Your task to perform on an android device: toggle location history Image 0: 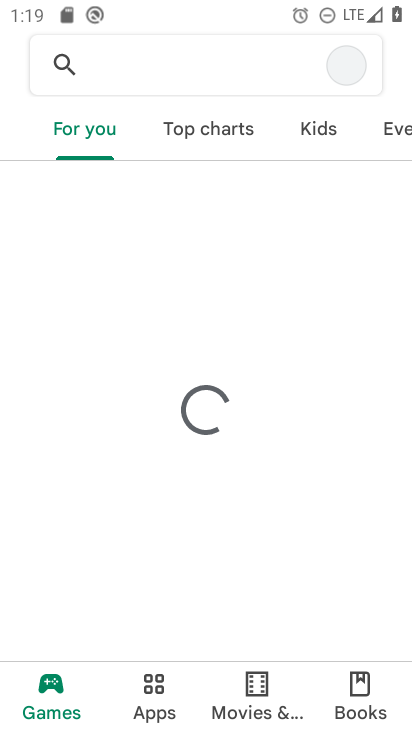
Step 0: press home button
Your task to perform on an android device: toggle location history Image 1: 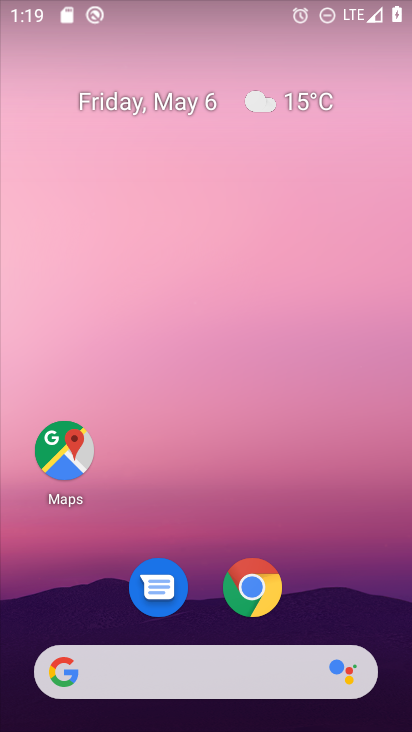
Step 1: drag from (352, 586) to (257, 9)
Your task to perform on an android device: toggle location history Image 2: 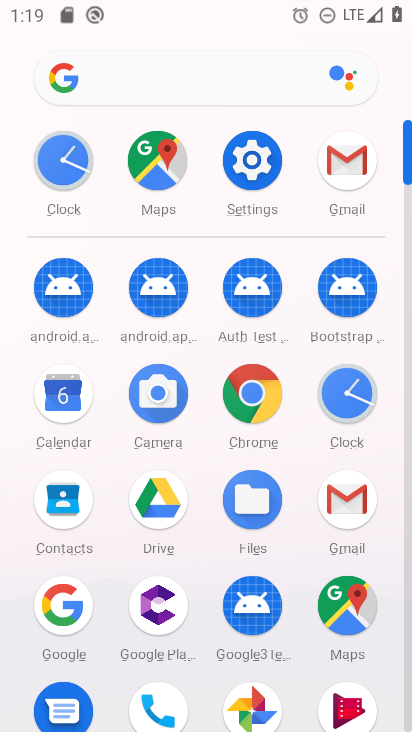
Step 2: click (256, 159)
Your task to perform on an android device: toggle location history Image 3: 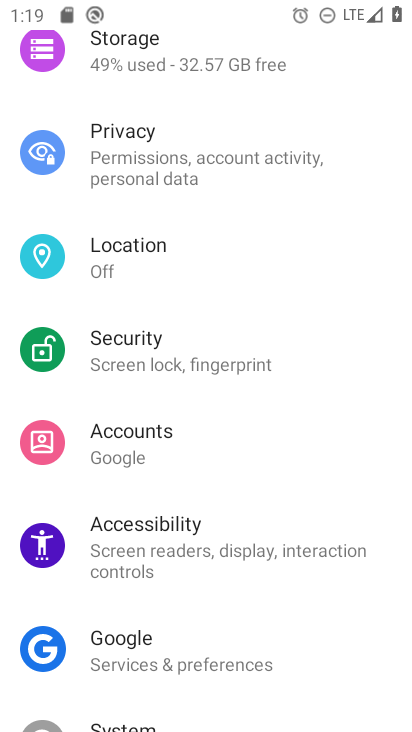
Step 3: click (169, 255)
Your task to perform on an android device: toggle location history Image 4: 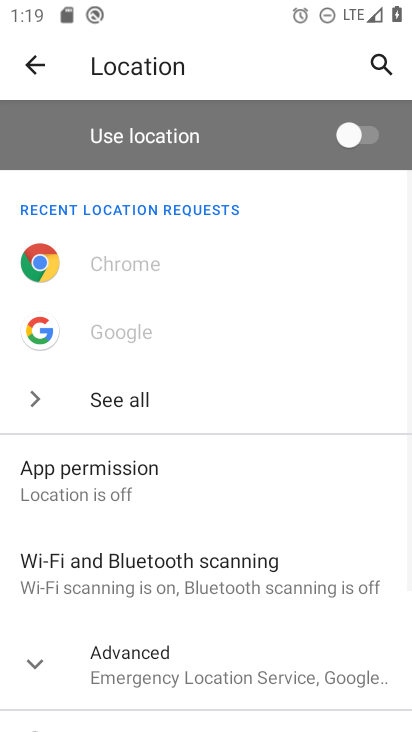
Step 4: click (138, 655)
Your task to perform on an android device: toggle location history Image 5: 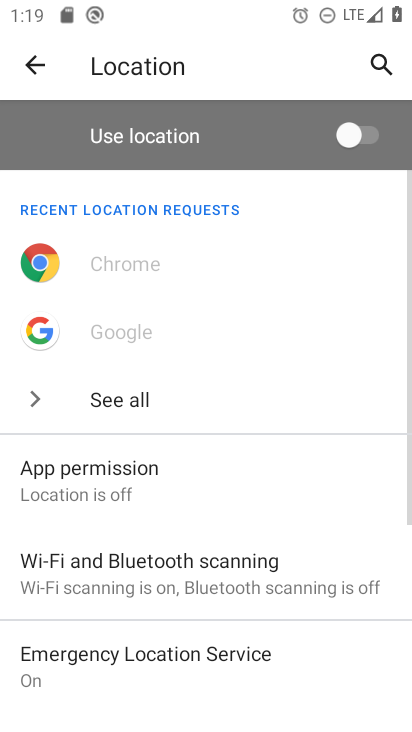
Step 5: drag from (157, 669) to (170, 233)
Your task to perform on an android device: toggle location history Image 6: 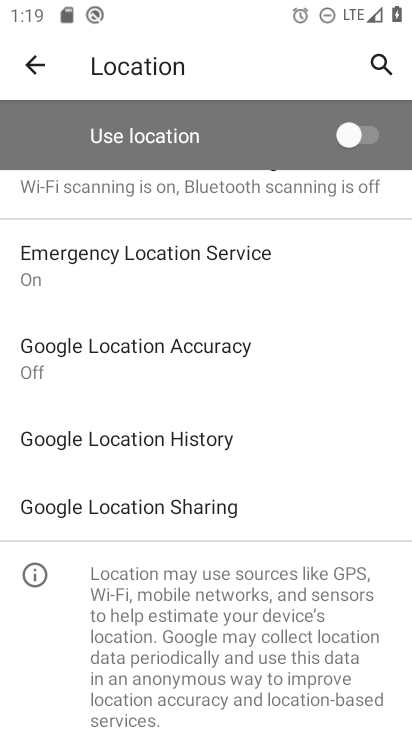
Step 6: click (158, 430)
Your task to perform on an android device: toggle location history Image 7: 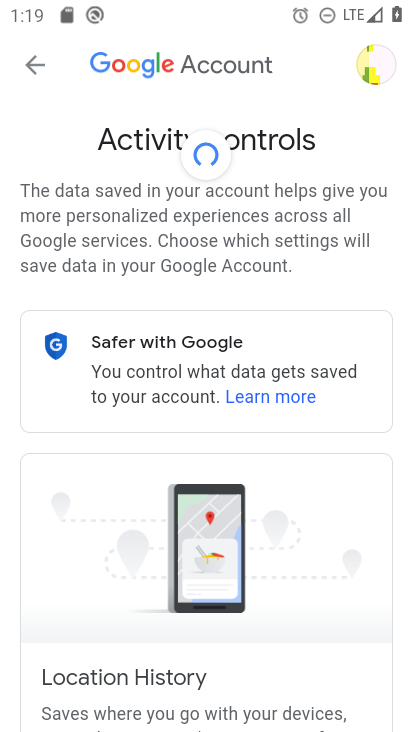
Step 7: drag from (311, 601) to (294, 103)
Your task to perform on an android device: toggle location history Image 8: 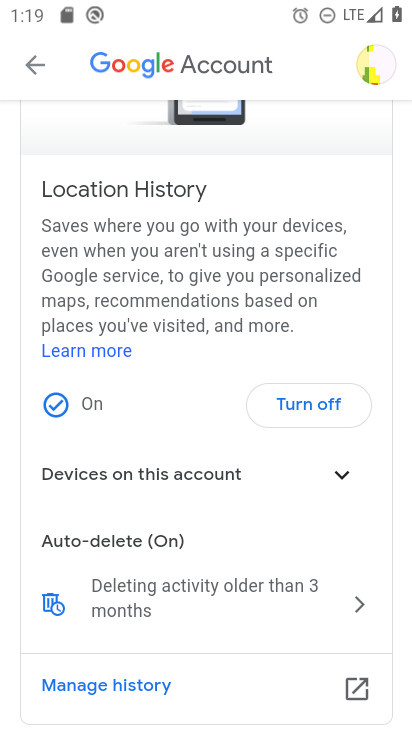
Step 8: click (331, 409)
Your task to perform on an android device: toggle location history Image 9: 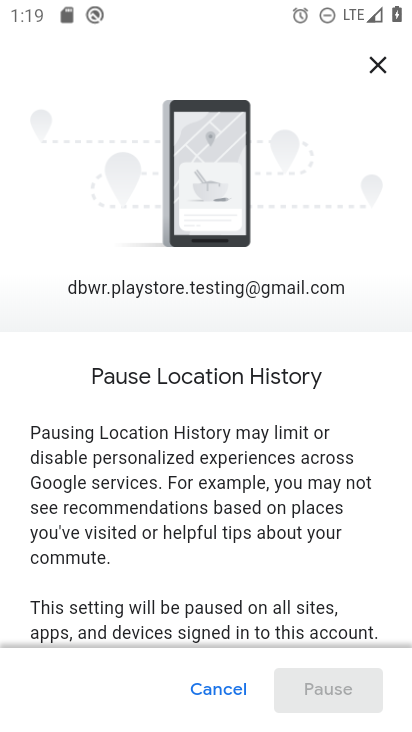
Step 9: drag from (300, 575) to (274, 19)
Your task to perform on an android device: toggle location history Image 10: 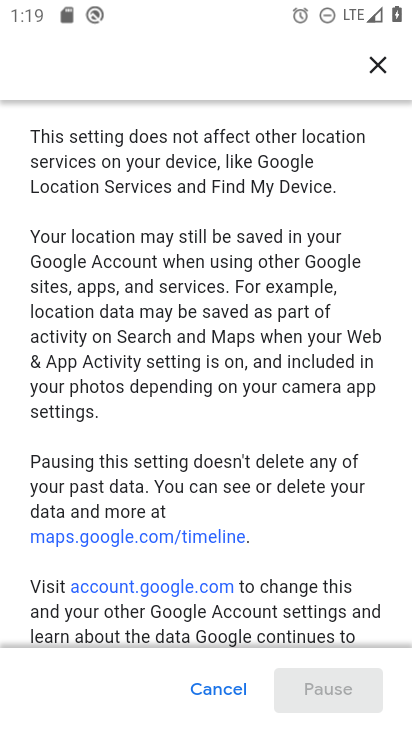
Step 10: drag from (239, 585) to (269, 84)
Your task to perform on an android device: toggle location history Image 11: 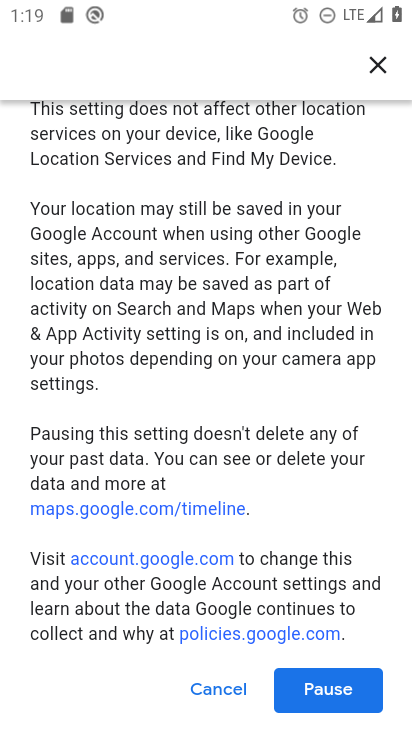
Step 11: click (347, 698)
Your task to perform on an android device: toggle location history Image 12: 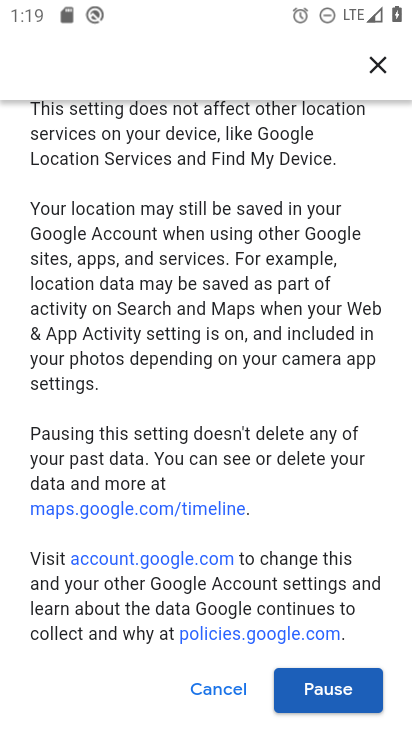
Step 12: click (342, 692)
Your task to perform on an android device: toggle location history Image 13: 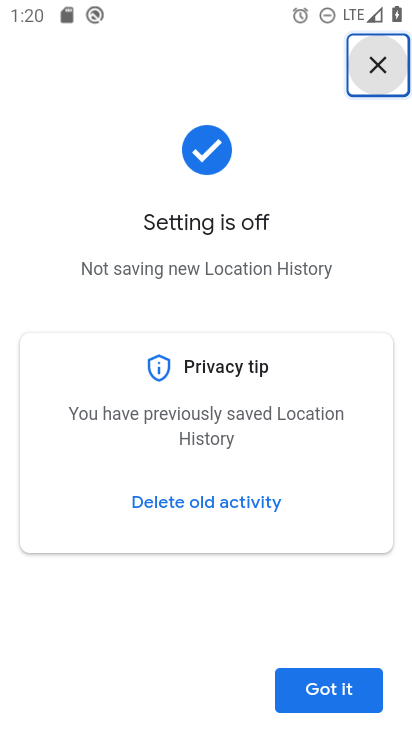
Step 13: click (349, 697)
Your task to perform on an android device: toggle location history Image 14: 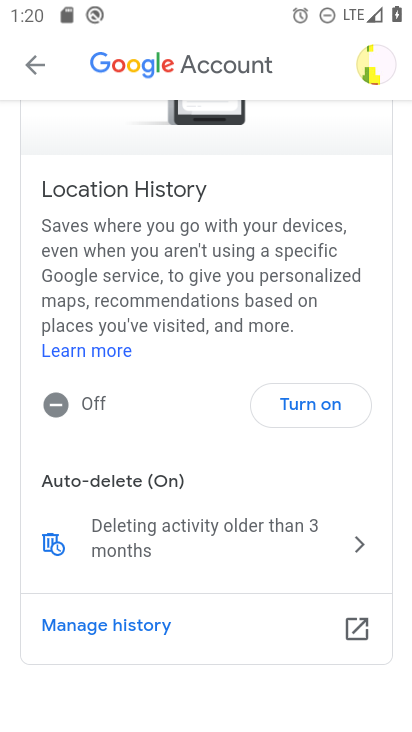
Step 14: task complete